Your task to perform on an android device: What's the weather today? Image 0: 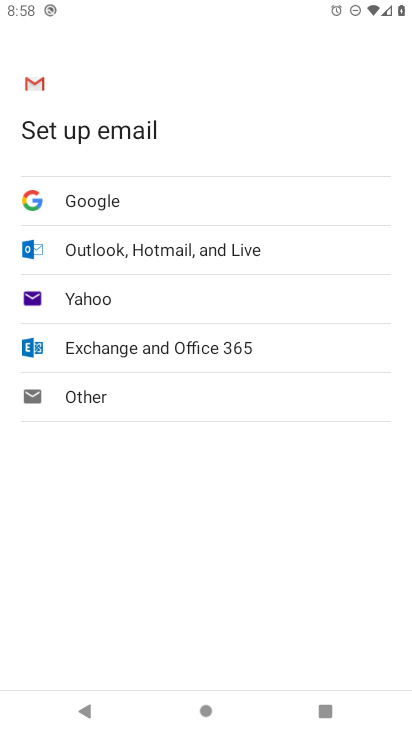
Step 0: press home button
Your task to perform on an android device: What's the weather today? Image 1: 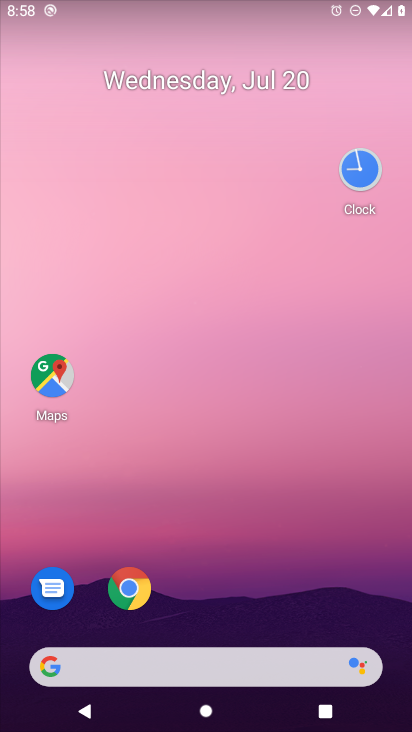
Step 1: drag from (13, 711) to (339, 54)
Your task to perform on an android device: What's the weather today? Image 2: 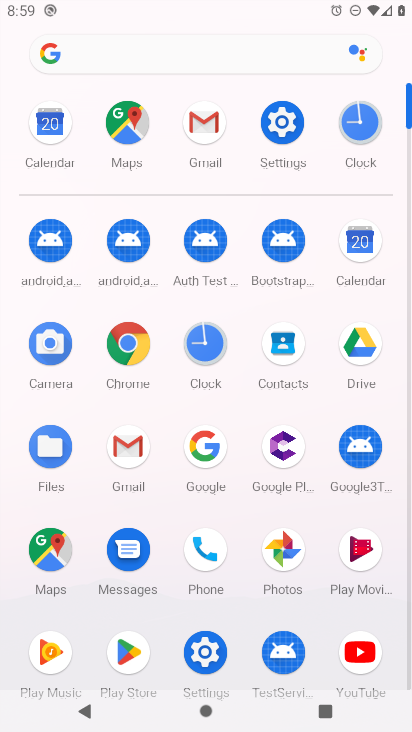
Step 2: click (364, 244)
Your task to perform on an android device: What's the weather today? Image 3: 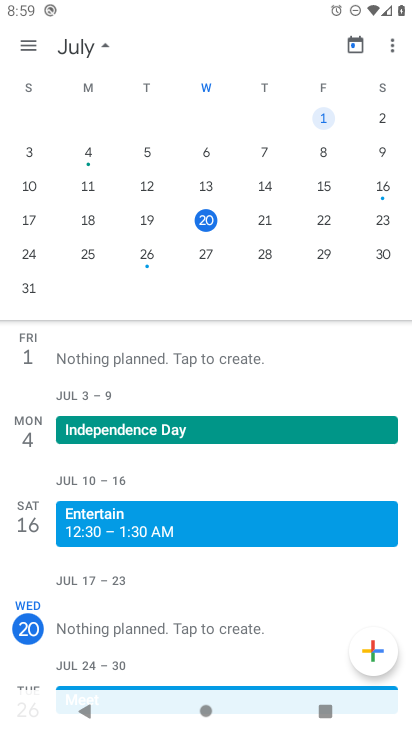
Step 3: press home button
Your task to perform on an android device: What's the weather today? Image 4: 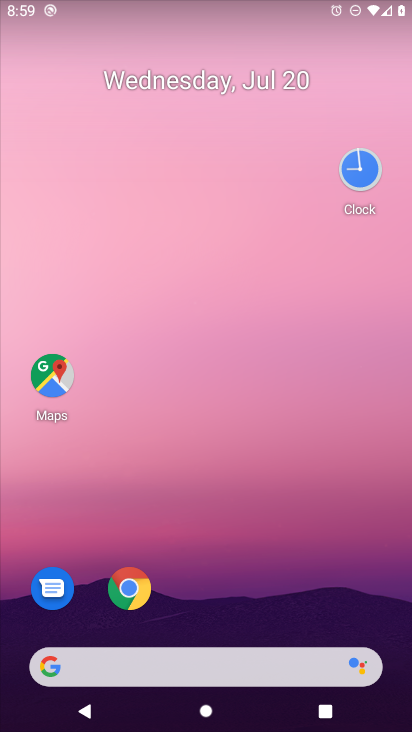
Step 4: click (93, 665)
Your task to perform on an android device: What's the weather today? Image 5: 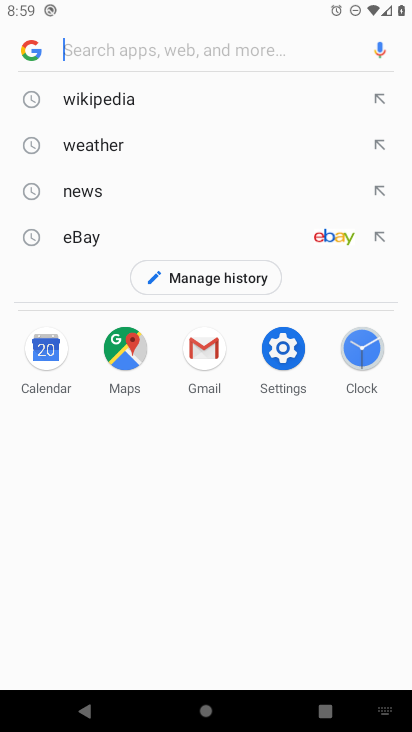
Step 5: type "What's the weather today?"
Your task to perform on an android device: What's the weather today? Image 6: 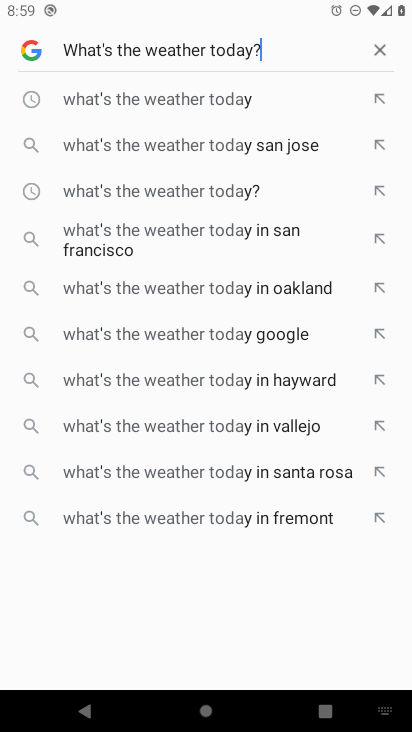
Step 6: type ""
Your task to perform on an android device: What's the weather today? Image 7: 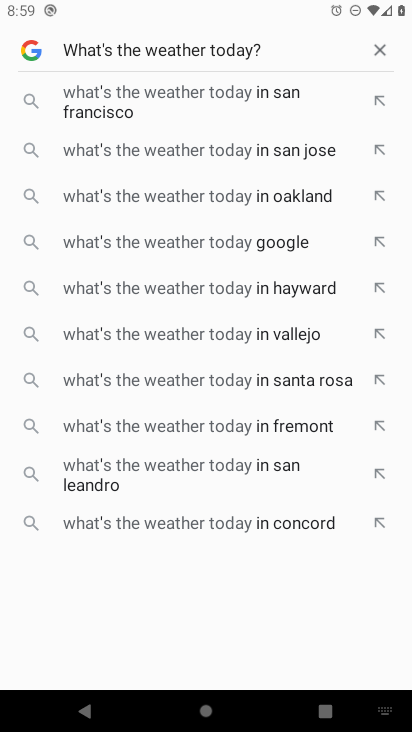
Step 7: type ""
Your task to perform on an android device: What's the weather today? Image 8: 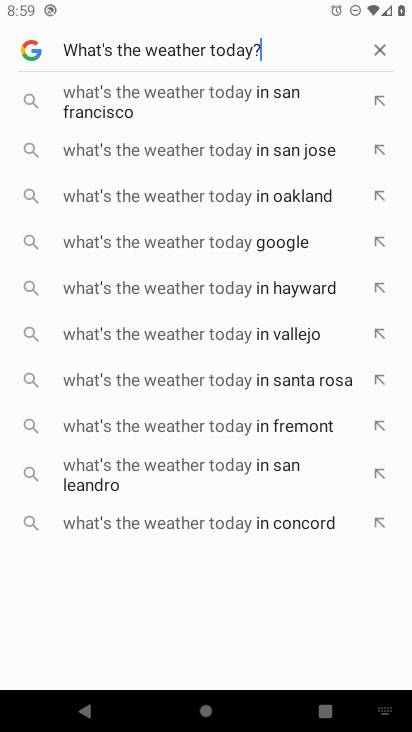
Step 8: type ""
Your task to perform on an android device: What's the weather today? Image 9: 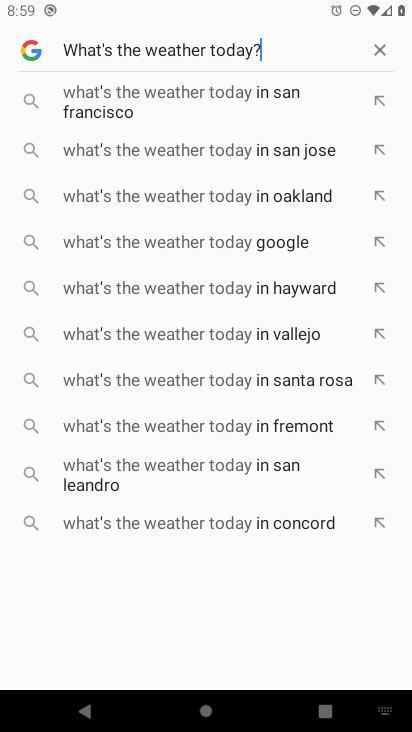
Step 9: task complete